Your task to perform on an android device: turn on priority inbox in the gmail app Image 0: 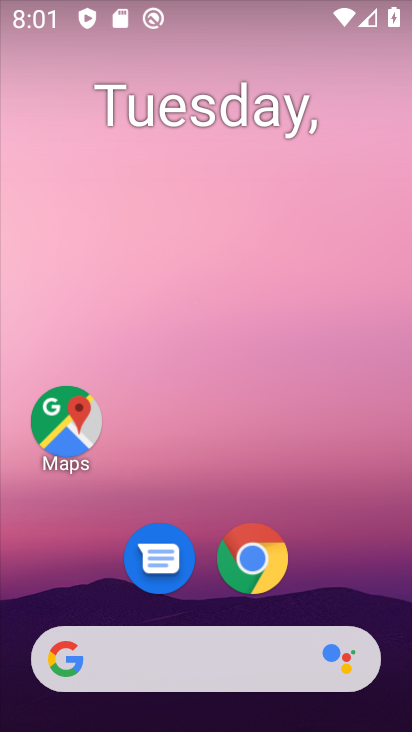
Step 0: drag from (167, 594) to (76, 79)
Your task to perform on an android device: turn on priority inbox in the gmail app Image 1: 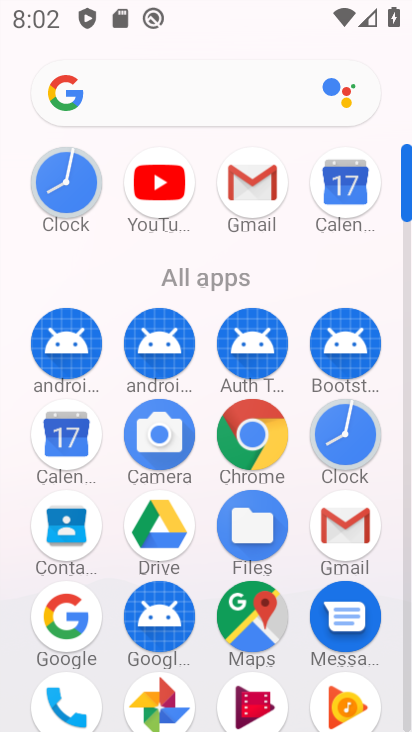
Step 1: click (328, 538)
Your task to perform on an android device: turn on priority inbox in the gmail app Image 2: 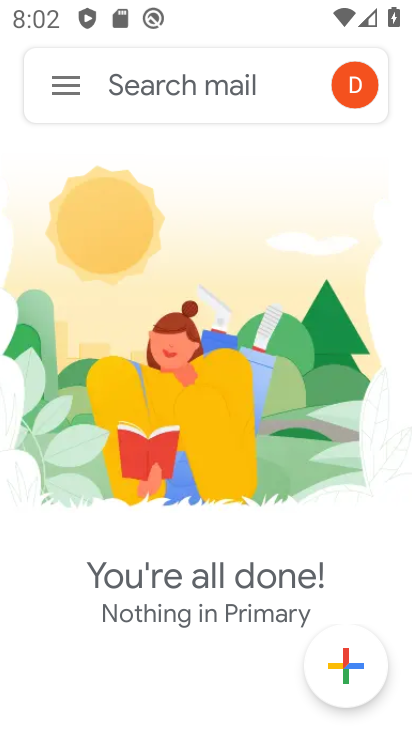
Step 2: click (72, 89)
Your task to perform on an android device: turn on priority inbox in the gmail app Image 3: 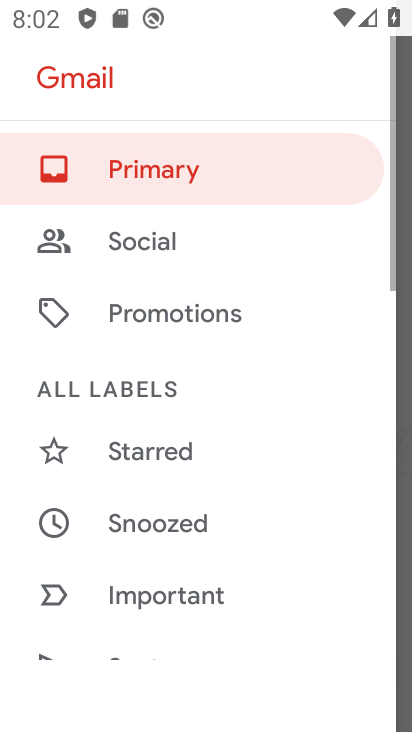
Step 3: drag from (219, 544) to (157, 83)
Your task to perform on an android device: turn on priority inbox in the gmail app Image 4: 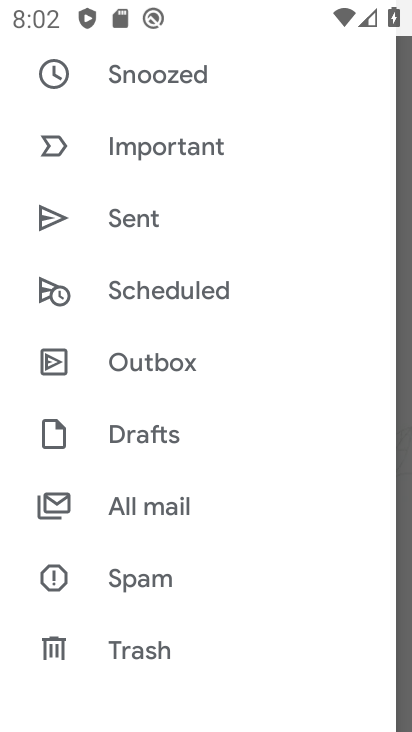
Step 4: drag from (170, 564) to (106, 91)
Your task to perform on an android device: turn on priority inbox in the gmail app Image 5: 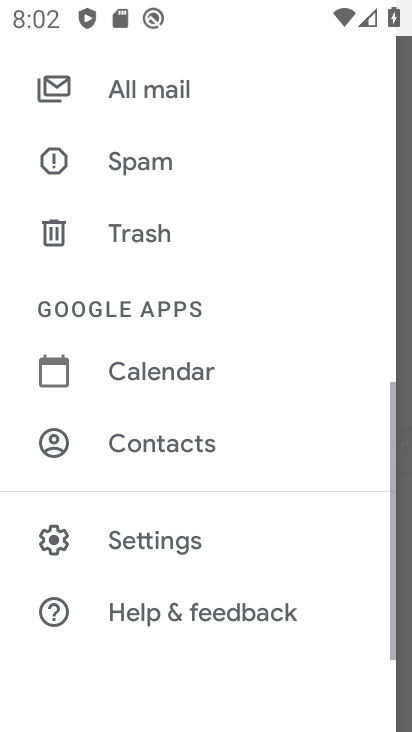
Step 5: click (131, 546)
Your task to perform on an android device: turn on priority inbox in the gmail app Image 6: 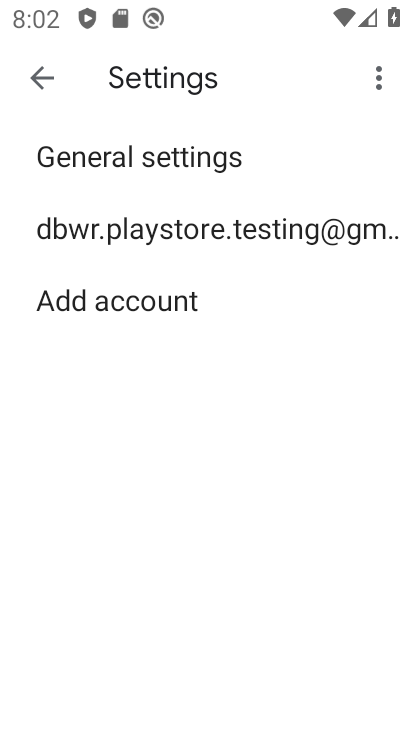
Step 6: click (115, 212)
Your task to perform on an android device: turn on priority inbox in the gmail app Image 7: 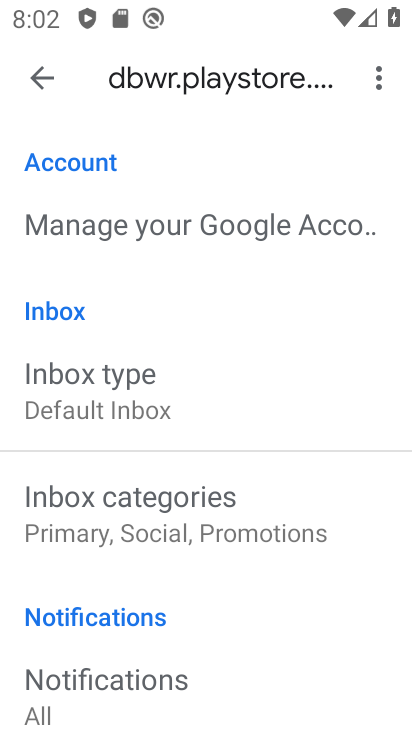
Step 7: click (116, 409)
Your task to perform on an android device: turn on priority inbox in the gmail app Image 8: 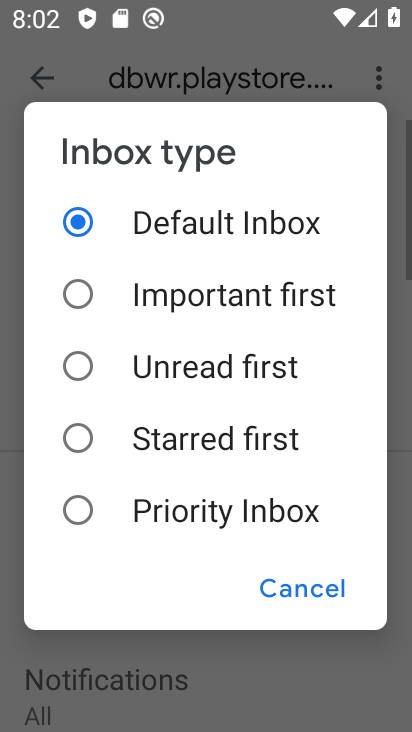
Step 8: click (154, 521)
Your task to perform on an android device: turn on priority inbox in the gmail app Image 9: 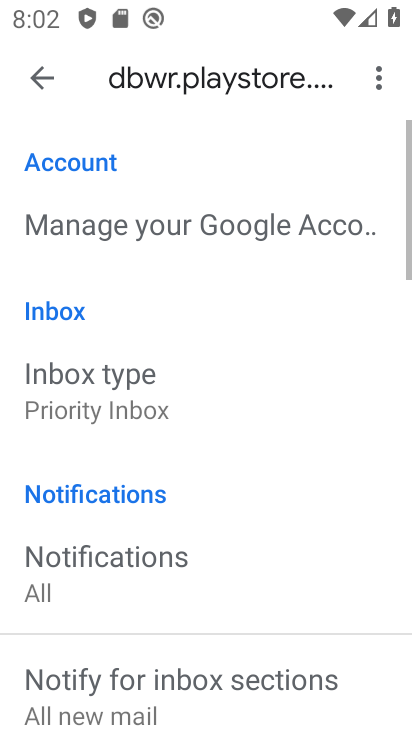
Step 9: task complete